Your task to perform on an android device: Go to Maps Image 0: 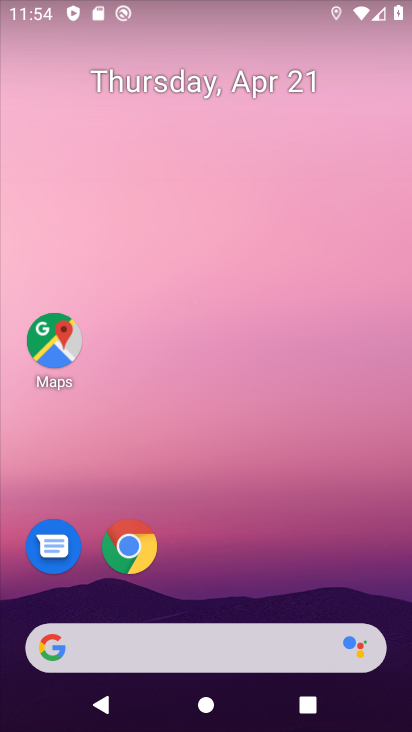
Step 0: drag from (226, 726) to (169, 248)
Your task to perform on an android device: Go to Maps Image 1: 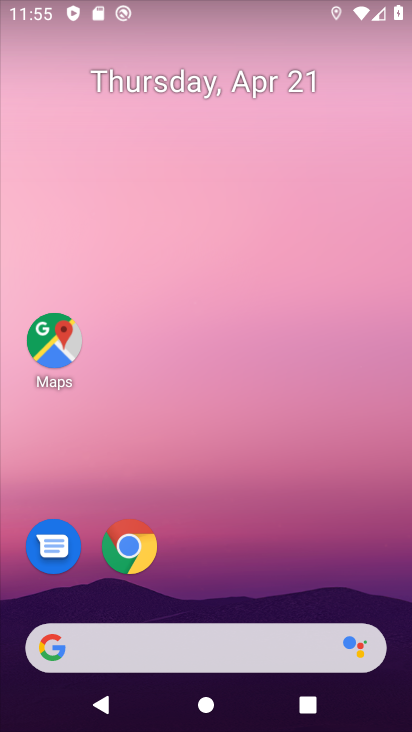
Step 1: drag from (227, 599) to (227, 122)
Your task to perform on an android device: Go to Maps Image 2: 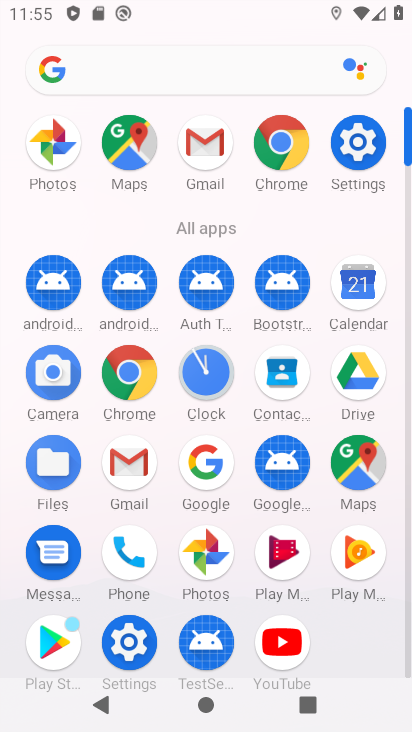
Step 2: click (129, 142)
Your task to perform on an android device: Go to Maps Image 3: 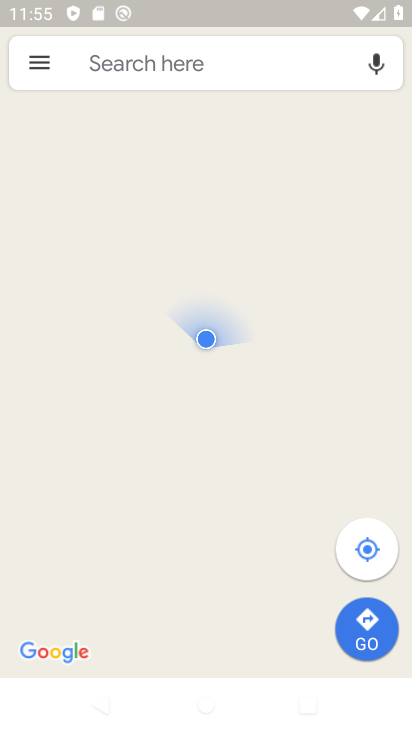
Step 3: task complete